Your task to perform on an android device: Open Wikipedia Image 0: 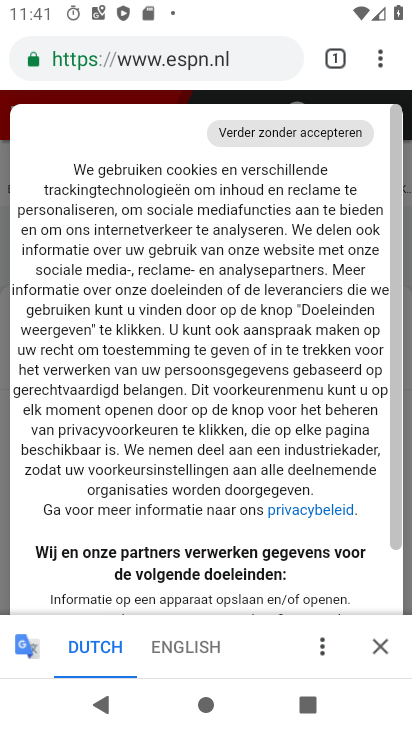
Step 0: click (244, 58)
Your task to perform on an android device: Open Wikipedia Image 1: 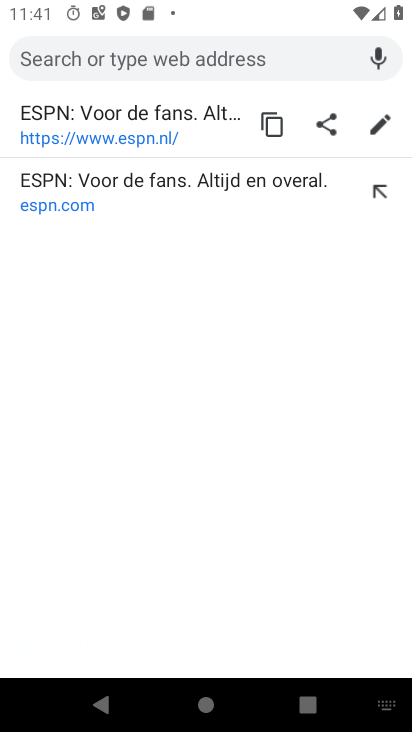
Step 1: type "wikipedia"
Your task to perform on an android device: Open Wikipedia Image 2: 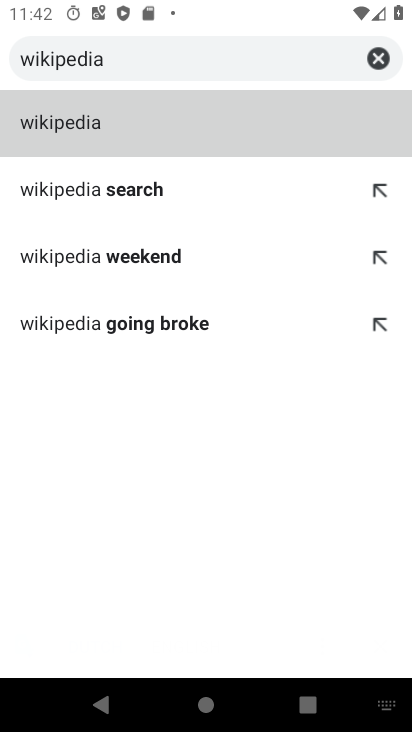
Step 2: click (76, 124)
Your task to perform on an android device: Open Wikipedia Image 3: 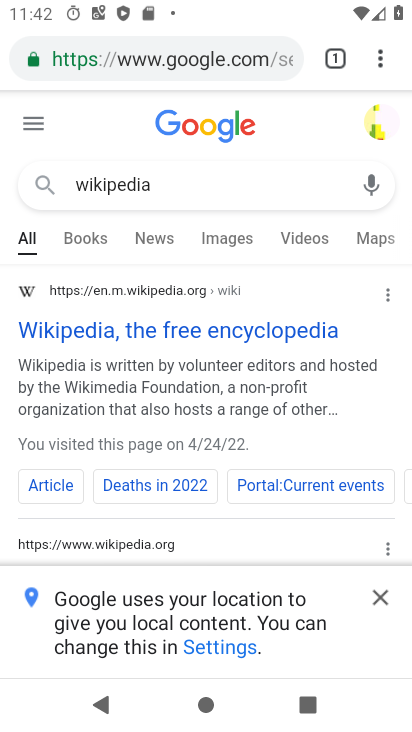
Step 3: click (164, 327)
Your task to perform on an android device: Open Wikipedia Image 4: 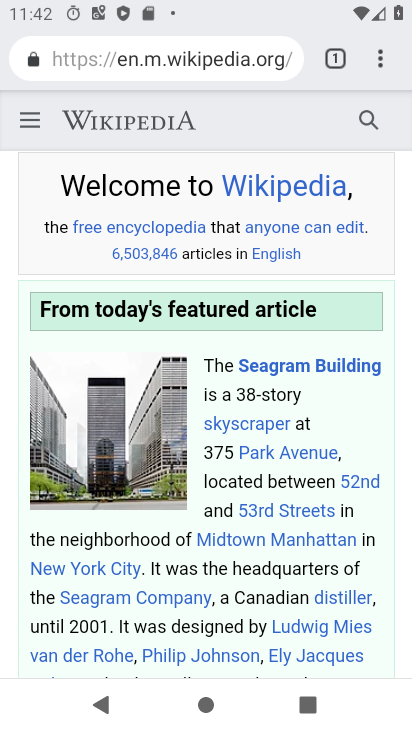
Step 4: task complete